Your task to perform on an android device: Open sound settings Image 0: 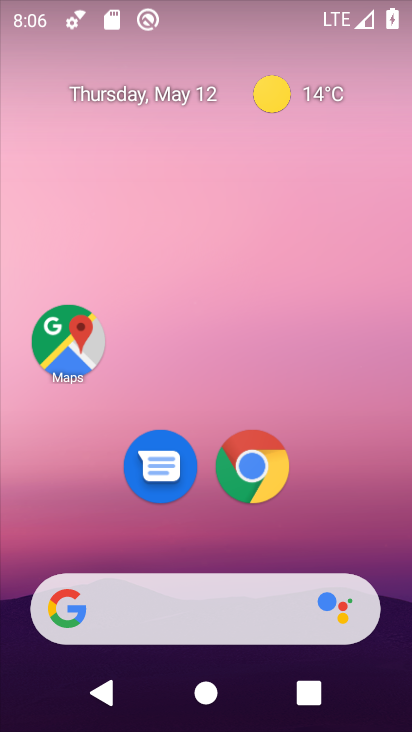
Step 0: drag from (205, 542) to (231, 66)
Your task to perform on an android device: Open sound settings Image 1: 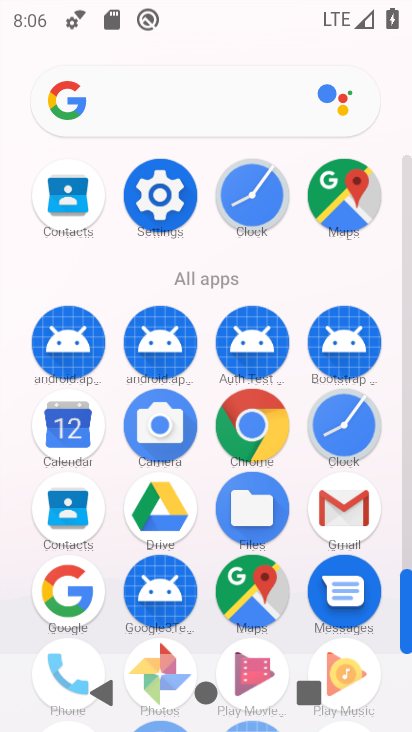
Step 1: click (158, 188)
Your task to perform on an android device: Open sound settings Image 2: 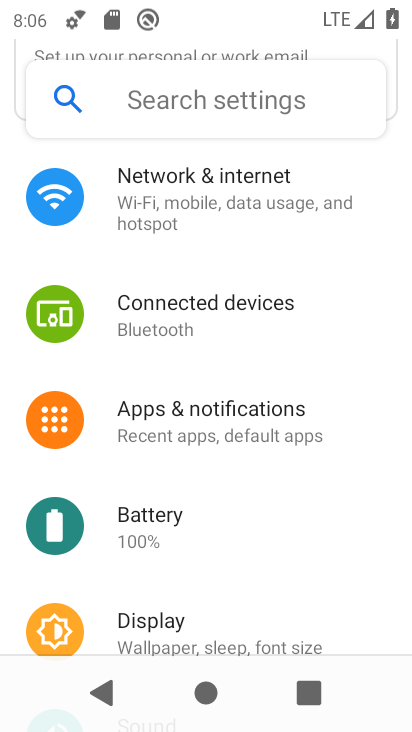
Step 2: drag from (204, 590) to (241, 158)
Your task to perform on an android device: Open sound settings Image 3: 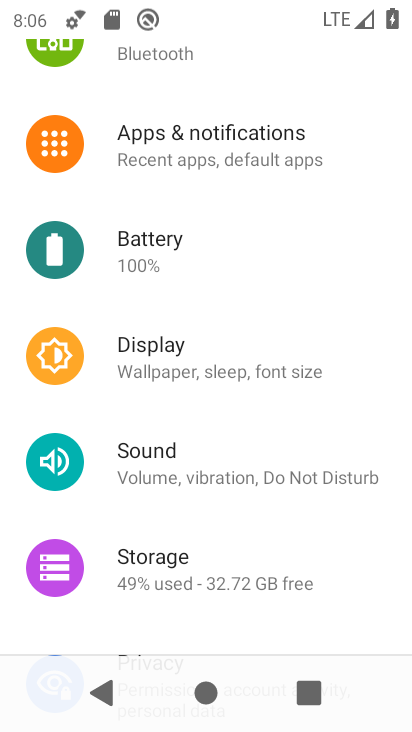
Step 3: click (195, 456)
Your task to perform on an android device: Open sound settings Image 4: 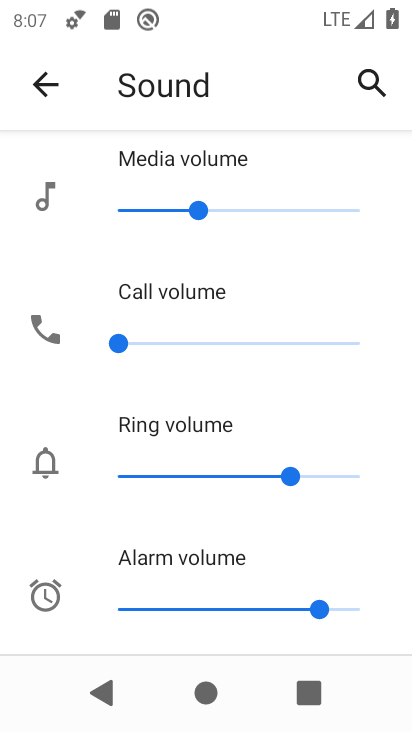
Step 4: drag from (209, 620) to (265, 157)
Your task to perform on an android device: Open sound settings Image 5: 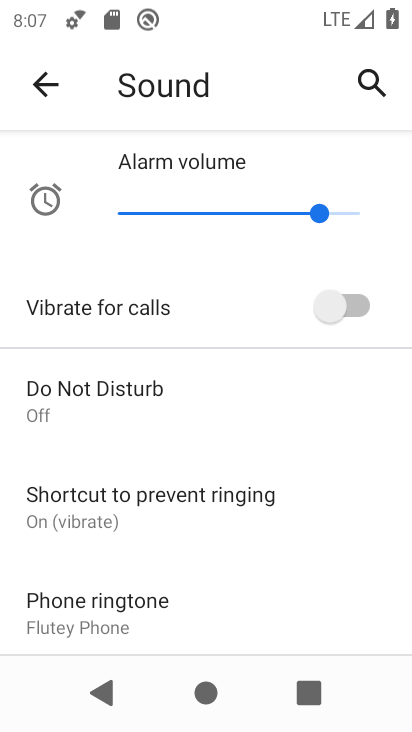
Step 5: drag from (156, 585) to (180, 375)
Your task to perform on an android device: Open sound settings Image 6: 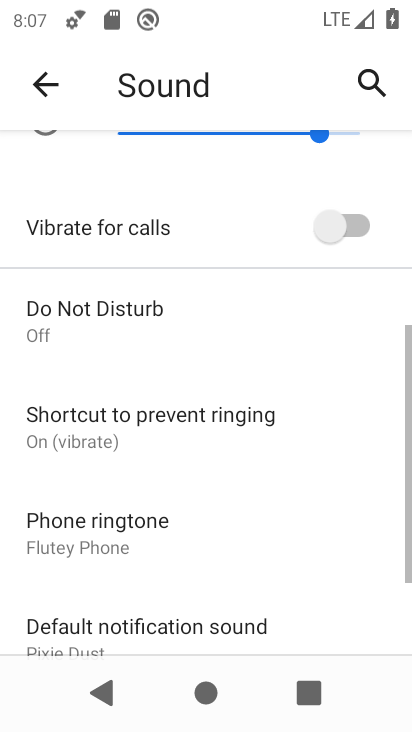
Step 6: drag from (195, 212) to (197, 178)
Your task to perform on an android device: Open sound settings Image 7: 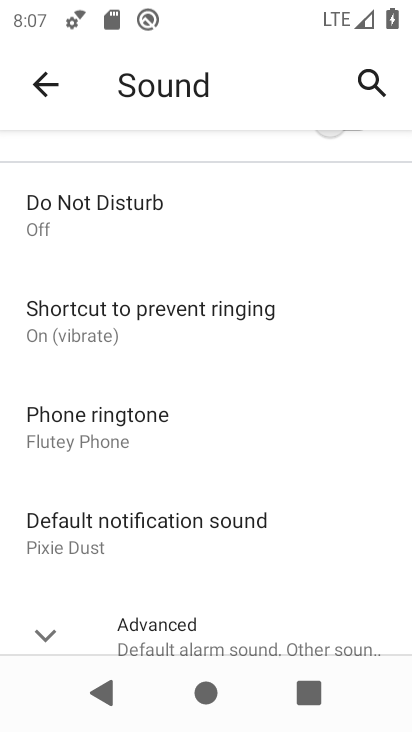
Step 7: click (42, 624)
Your task to perform on an android device: Open sound settings Image 8: 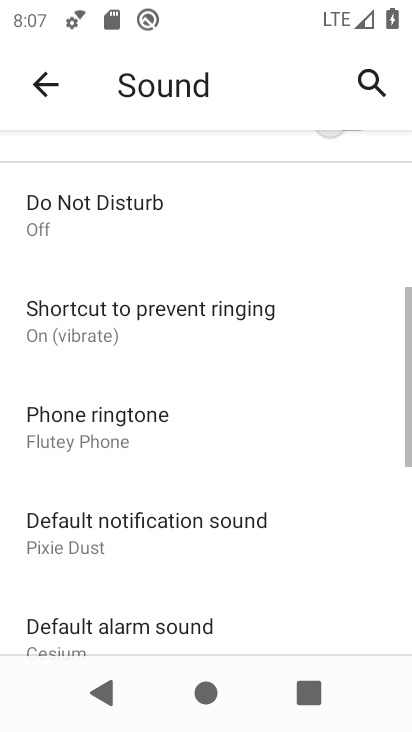
Step 8: task complete